Your task to perform on an android device: open chrome and create a bookmark for the current page Image 0: 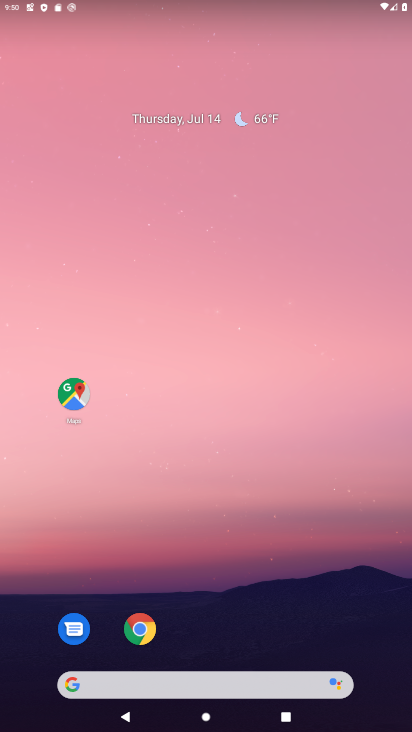
Step 0: press home button
Your task to perform on an android device: open chrome and create a bookmark for the current page Image 1: 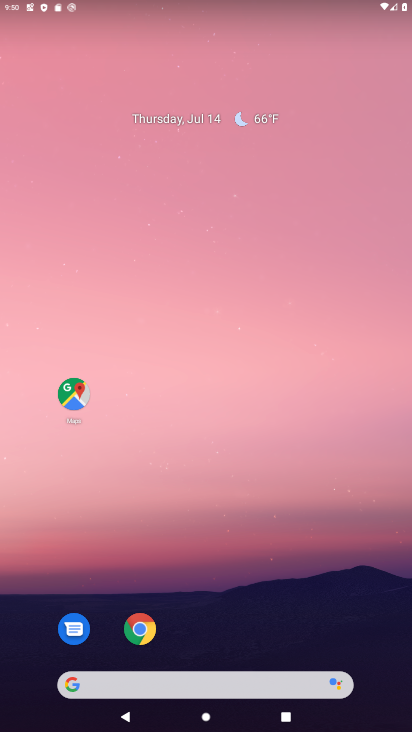
Step 1: drag from (230, 584) to (303, 68)
Your task to perform on an android device: open chrome and create a bookmark for the current page Image 2: 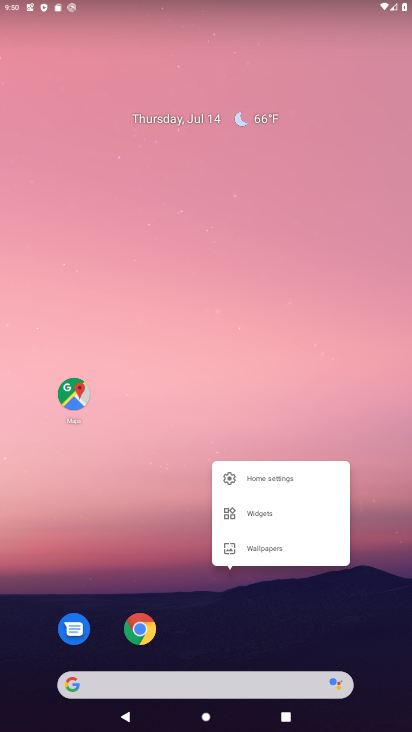
Step 2: click (159, 519)
Your task to perform on an android device: open chrome and create a bookmark for the current page Image 3: 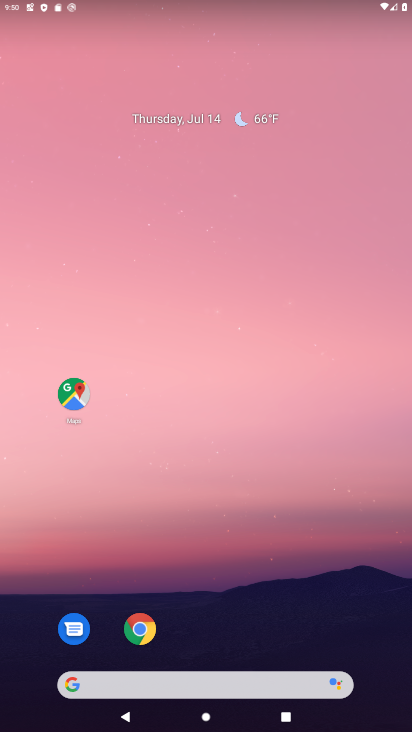
Step 3: drag from (183, 560) to (313, 6)
Your task to perform on an android device: open chrome and create a bookmark for the current page Image 4: 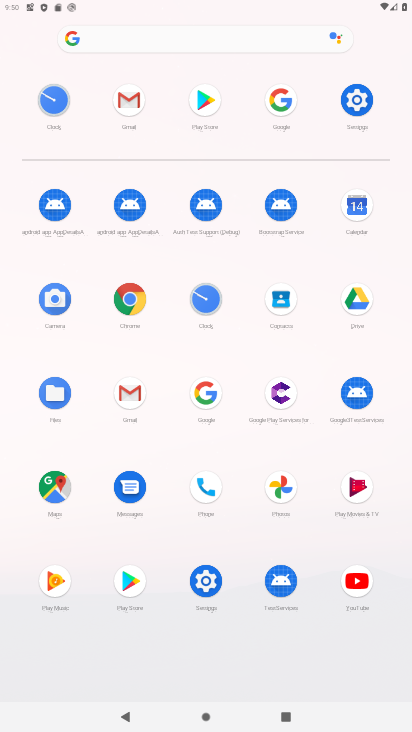
Step 4: click (130, 297)
Your task to perform on an android device: open chrome and create a bookmark for the current page Image 5: 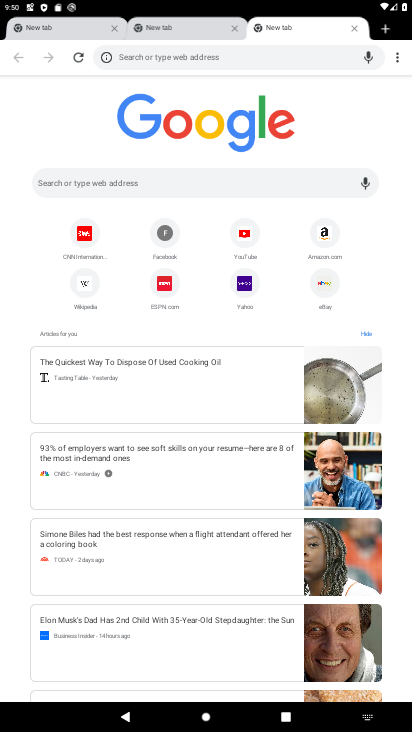
Step 5: click (393, 54)
Your task to perform on an android device: open chrome and create a bookmark for the current page Image 6: 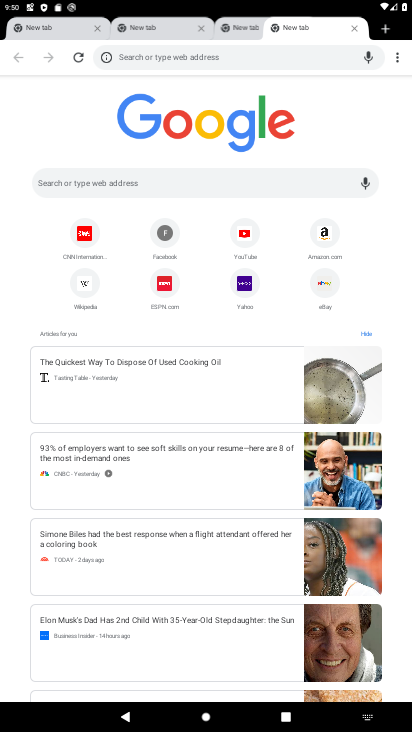
Step 6: click (246, 27)
Your task to perform on an android device: open chrome and create a bookmark for the current page Image 7: 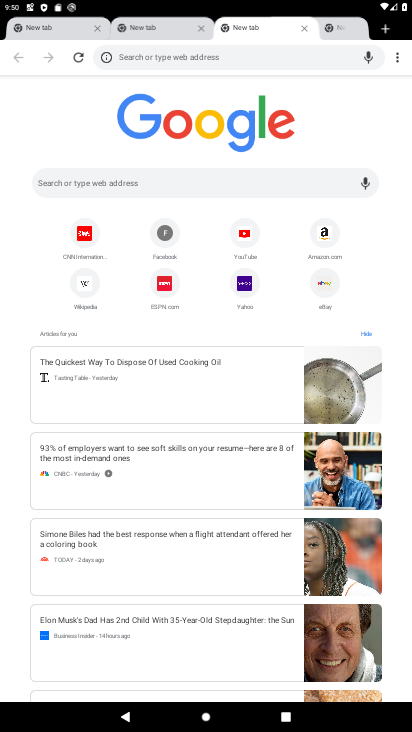
Step 7: click (394, 54)
Your task to perform on an android device: open chrome and create a bookmark for the current page Image 8: 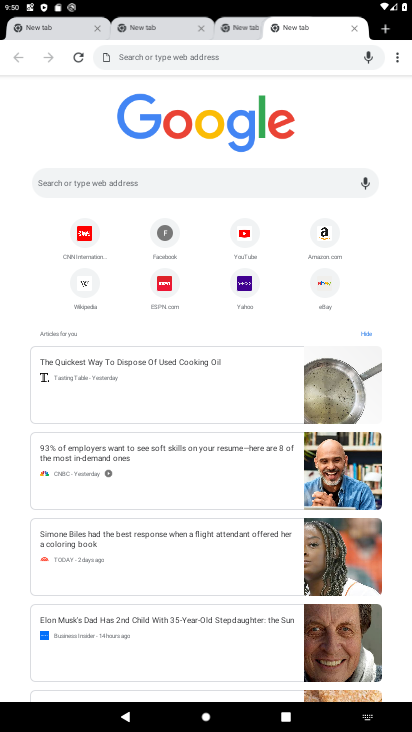
Step 8: click (248, 25)
Your task to perform on an android device: open chrome and create a bookmark for the current page Image 9: 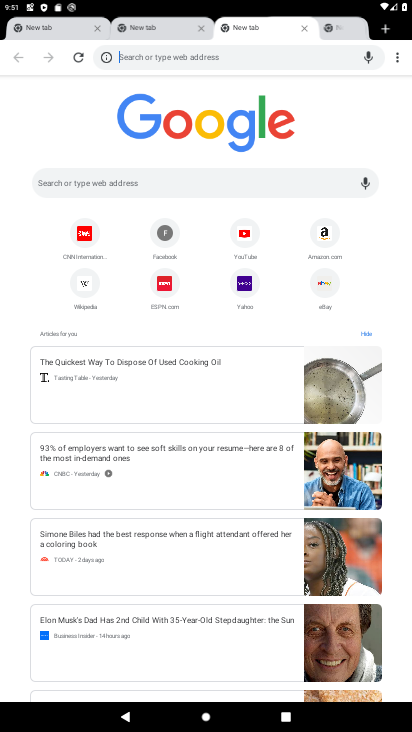
Step 9: task complete